Your task to perform on an android device: remove spam from my inbox in the gmail app Image 0: 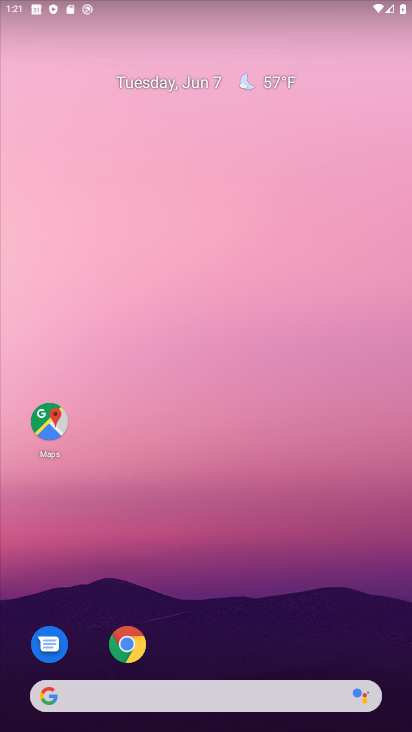
Step 0: drag from (288, 675) to (143, 16)
Your task to perform on an android device: remove spam from my inbox in the gmail app Image 1: 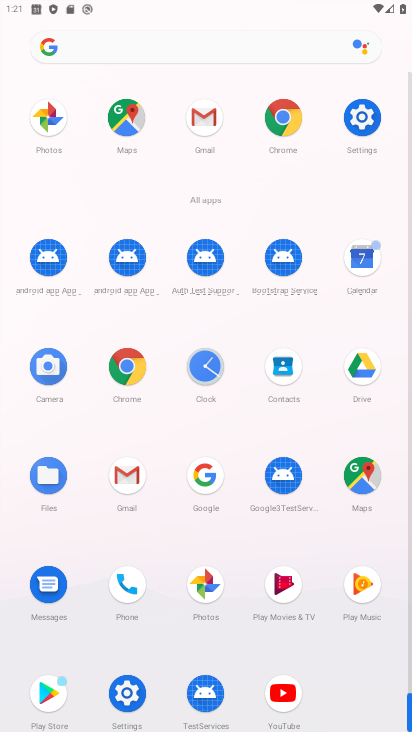
Step 1: drag from (247, 652) to (166, 19)
Your task to perform on an android device: remove spam from my inbox in the gmail app Image 2: 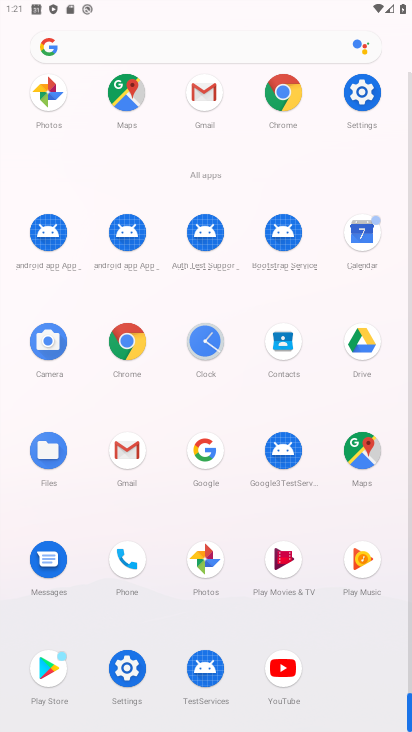
Step 2: click (126, 450)
Your task to perform on an android device: remove spam from my inbox in the gmail app Image 3: 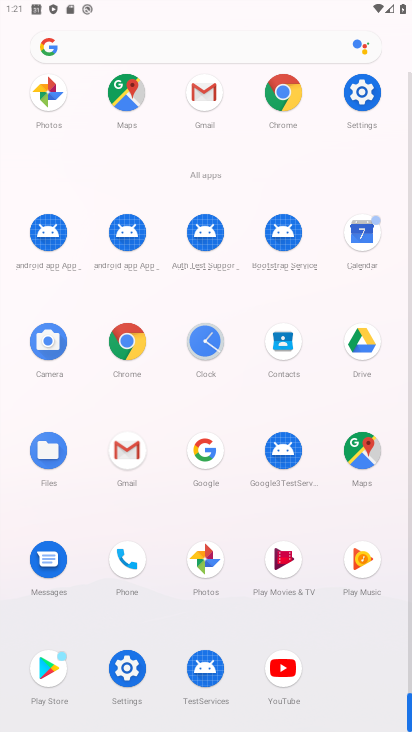
Step 3: click (128, 450)
Your task to perform on an android device: remove spam from my inbox in the gmail app Image 4: 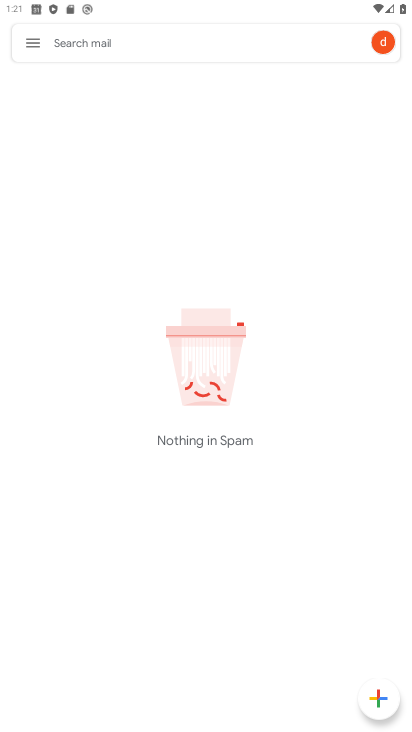
Step 4: click (127, 450)
Your task to perform on an android device: remove spam from my inbox in the gmail app Image 5: 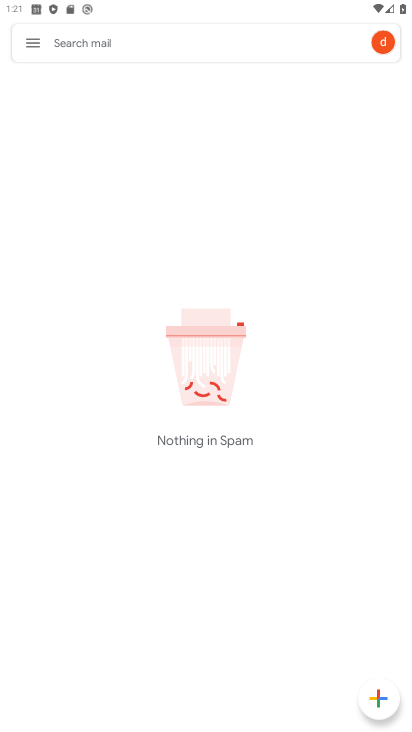
Step 5: click (126, 450)
Your task to perform on an android device: remove spam from my inbox in the gmail app Image 6: 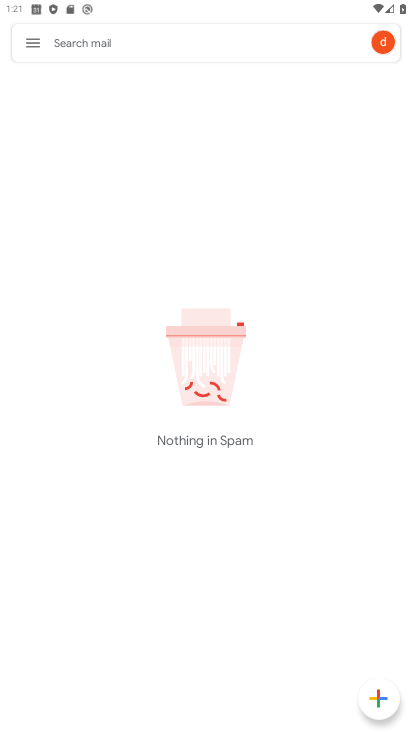
Step 6: task complete